Your task to perform on an android device: move a message to another label in the gmail app Image 0: 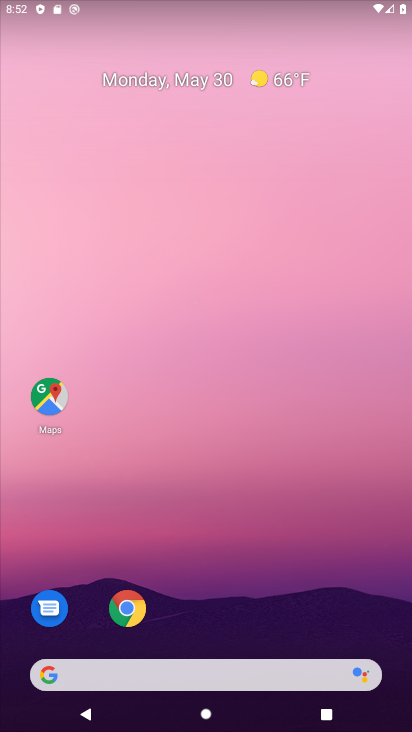
Step 0: drag from (239, 710) to (179, 90)
Your task to perform on an android device: move a message to another label in the gmail app Image 1: 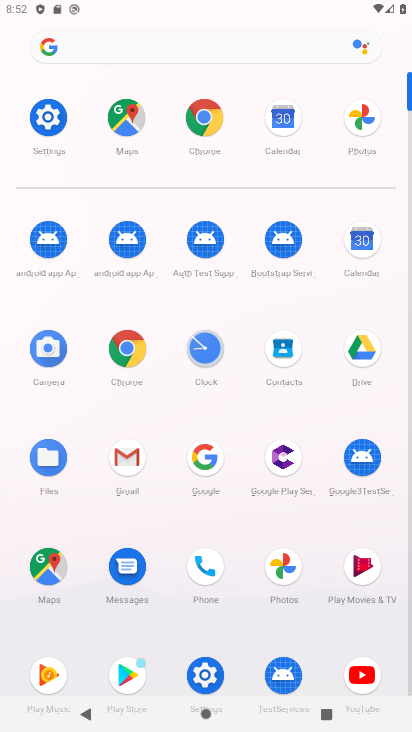
Step 1: click (127, 462)
Your task to perform on an android device: move a message to another label in the gmail app Image 2: 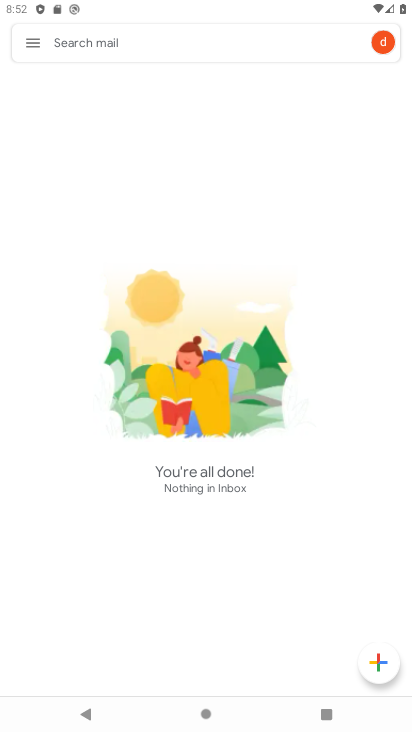
Step 2: task complete